Your task to perform on an android device: Open settings Image 0: 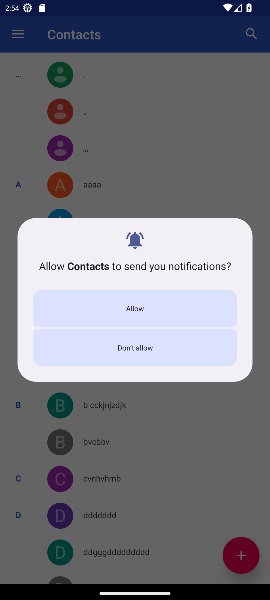
Step 0: press home button
Your task to perform on an android device: Open settings Image 1: 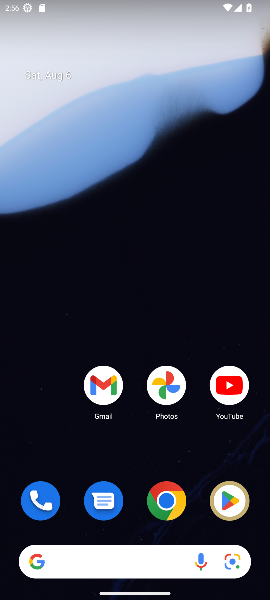
Step 1: drag from (90, 478) to (255, 17)
Your task to perform on an android device: Open settings Image 2: 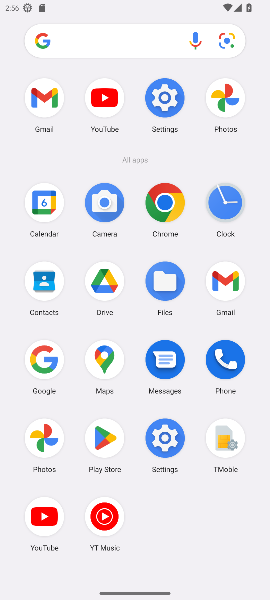
Step 2: click (166, 89)
Your task to perform on an android device: Open settings Image 3: 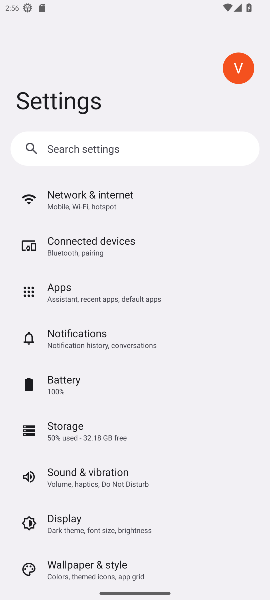
Step 3: task complete